Your task to perform on an android device: What's the weather today? Image 0: 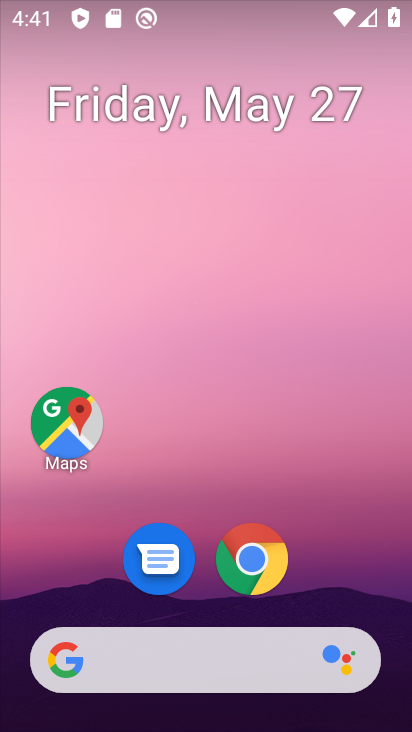
Step 0: click (258, 546)
Your task to perform on an android device: What's the weather today? Image 1: 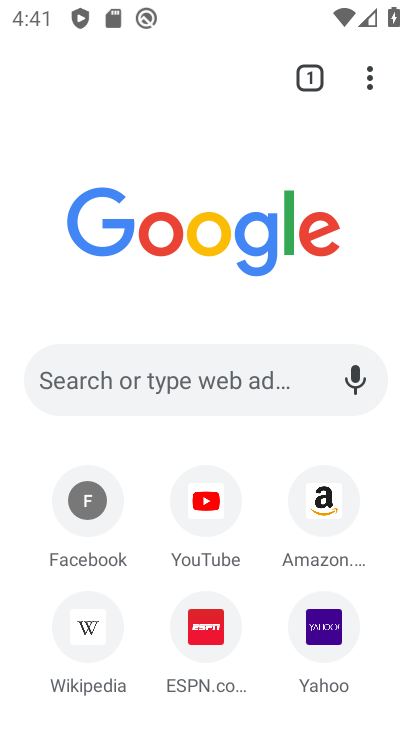
Step 1: click (259, 370)
Your task to perform on an android device: What's the weather today? Image 2: 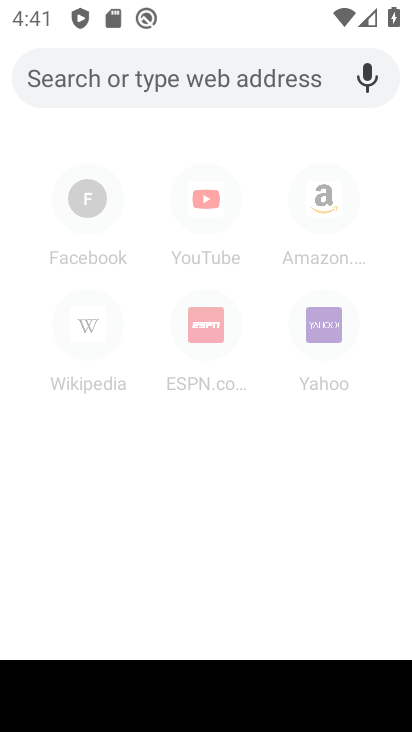
Step 2: type "What's the weather today?"
Your task to perform on an android device: What's the weather today? Image 3: 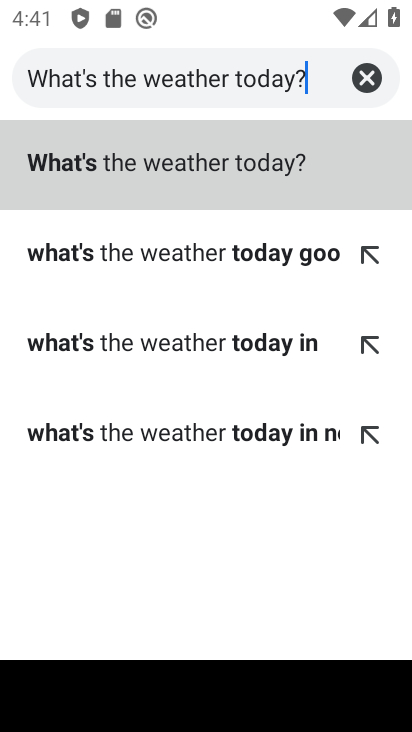
Step 3: click (167, 161)
Your task to perform on an android device: What's the weather today? Image 4: 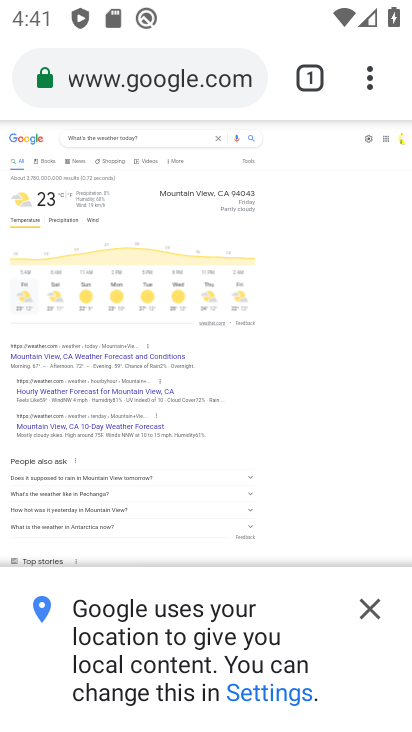
Step 4: task complete